Your task to perform on an android device: Show me productivity apps on the Play Store Image 0: 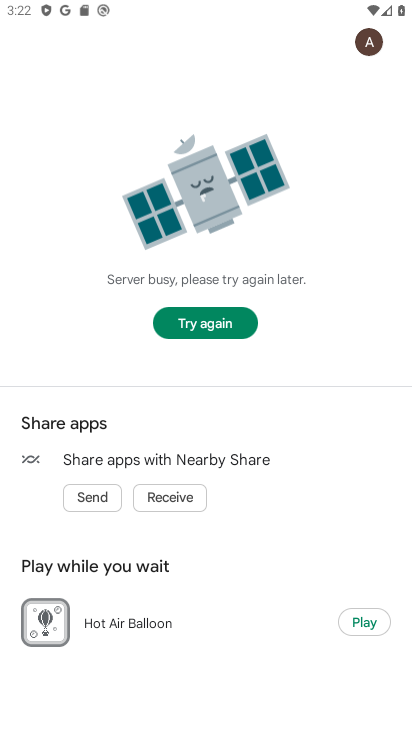
Step 0: task impossible